Your task to perform on an android device: turn on showing notifications on the lock screen Image 0: 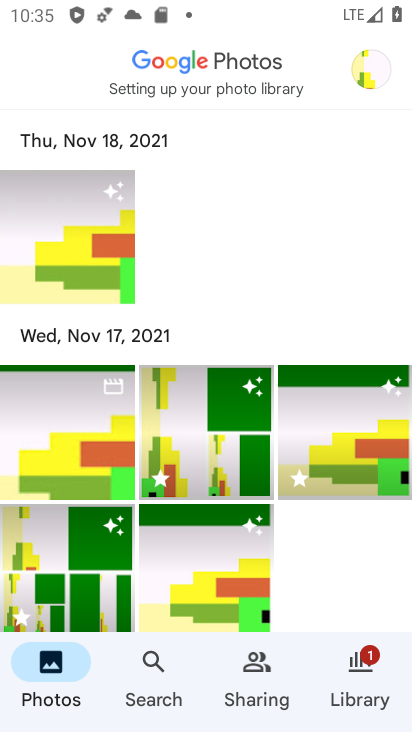
Step 0: press home button
Your task to perform on an android device: turn on showing notifications on the lock screen Image 1: 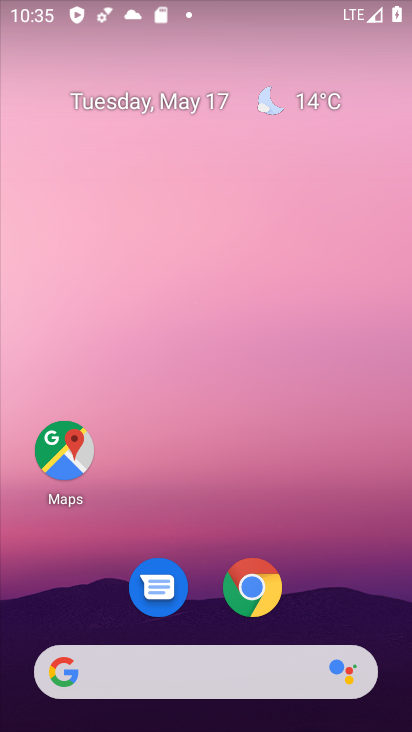
Step 1: drag from (318, 570) to (312, 230)
Your task to perform on an android device: turn on showing notifications on the lock screen Image 2: 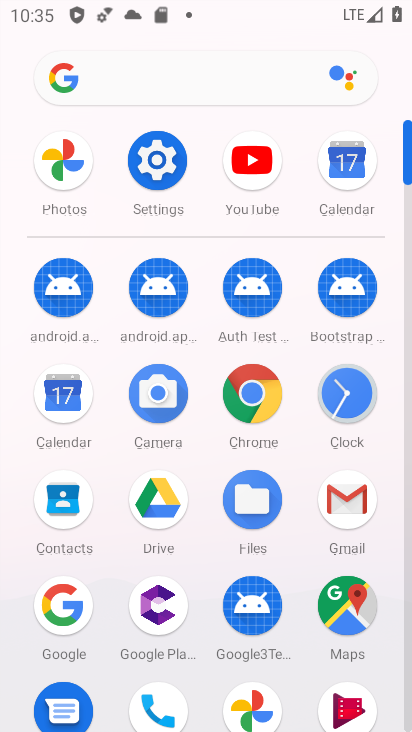
Step 2: click (155, 162)
Your task to perform on an android device: turn on showing notifications on the lock screen Image 3: 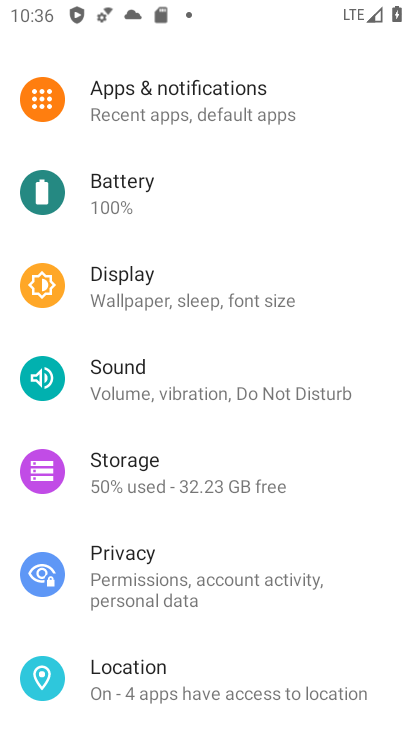
Step 3: click (216, 106)
Your task to perform on an android device: turn on showing notifications on the lock screen Image 4: 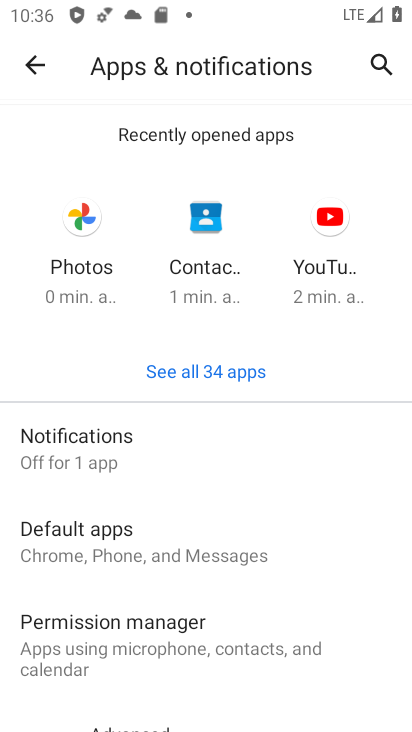
Step 4: click (66, 472)
Your task to perform on an android device: turn on showing notifications on the lock screen Image 5: 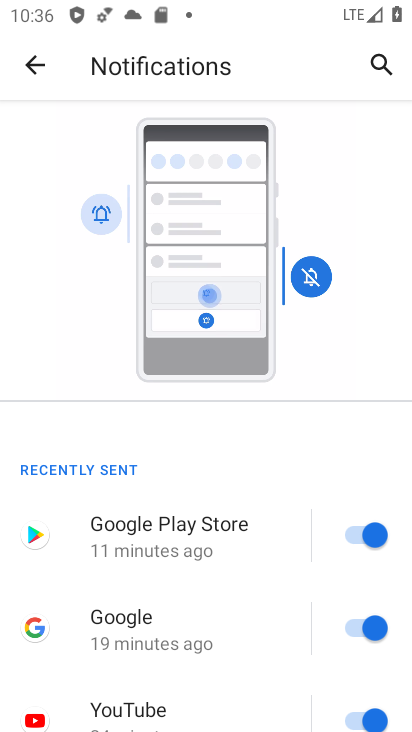
Step 5: drag from (241, 637) to (267, 323)
Your task to perform on an android device: turn on showing notifications on the lock screen Image 6: 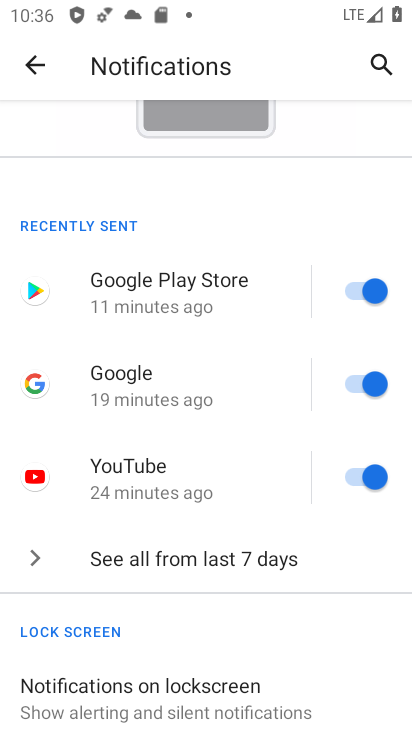
Step 6: drag from (205, 640) to (275, 386)
Your task to perform on an android device: turn on showing notifications on the lock screen Image 7: 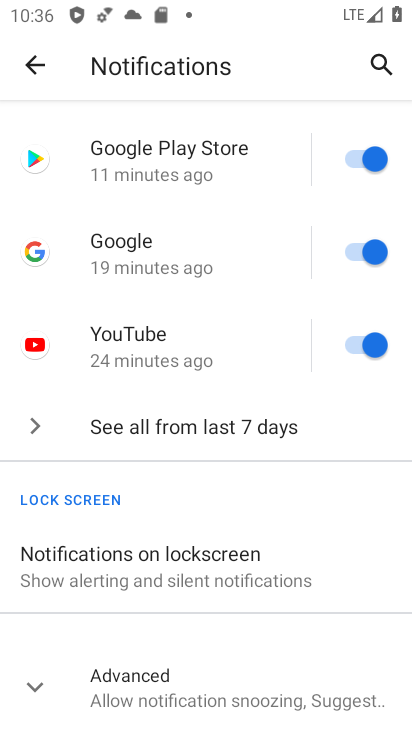
Step 7: click (182, 561)
Your task to perform on an android device: turn on showing notifications on the lock screen Image 8: 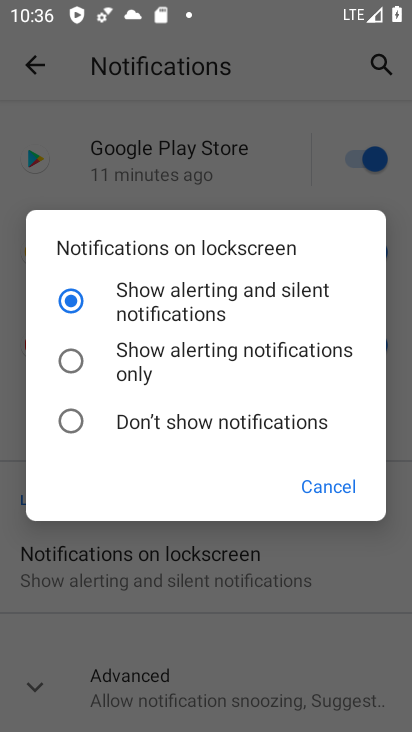
Step 8: click (302, 281)
Your task to perform on an android device: turn on showing notifications on the lock screen Image 9: 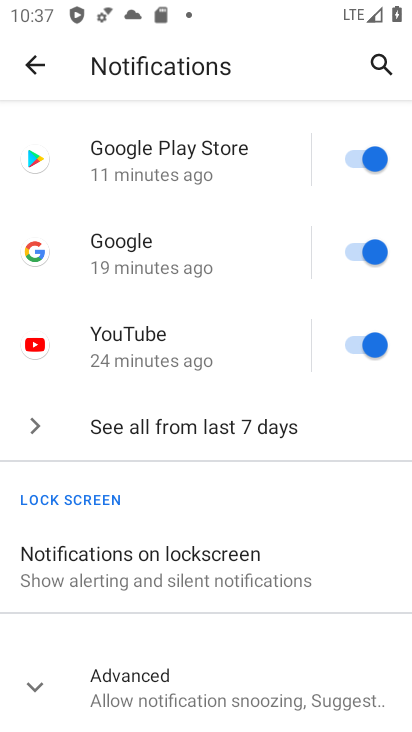
Step 9: task complete